Your task to perform on an android device: open app "Life360: Find Family & Friends" Image 0: 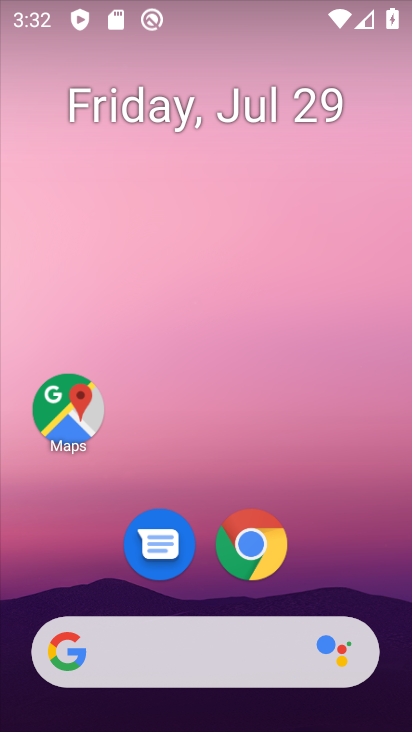
Step 0: drag from (222, 716) to (206, 148)
Your task to perform on an android device: open app "Life360: Find Family & Friends" Image 1: 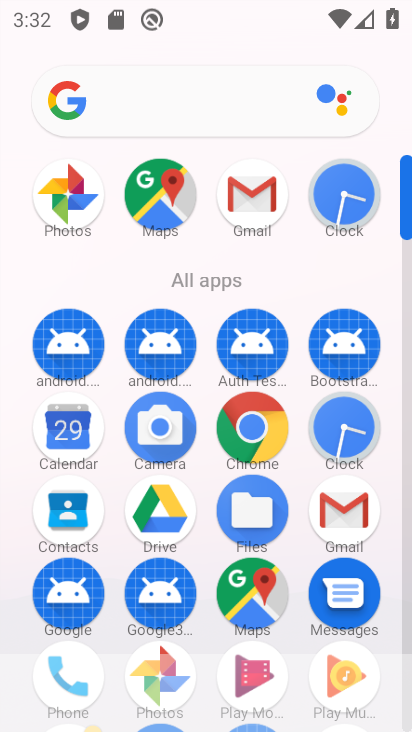
Step 1: drag from (200, 563) to (200, 258)
Your task to perform on an android device: open app "Life360: Find Family & Friends" Image 2: 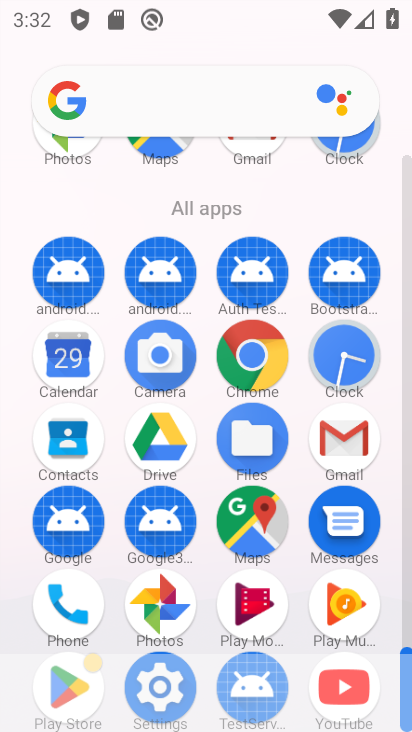
Step 2: drag from (118, 608) to (126, 242)
Your task to perform on an android device: open app "Life360: Find Family & Friends" Image 3: 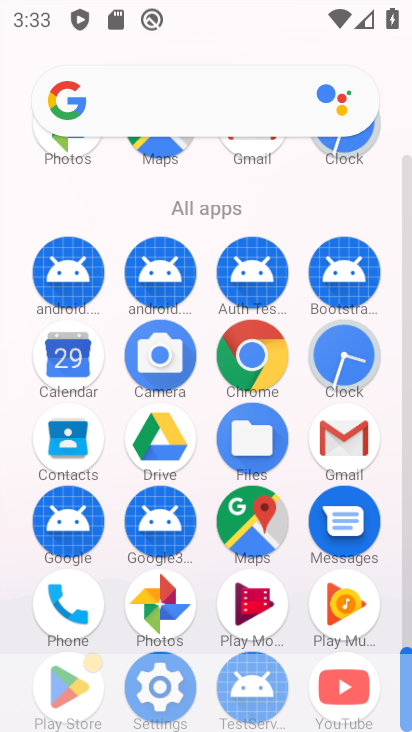
Step 3: click (74, 668)
Your task to perform on an android device: open app "Life360: Find Family & Friends" Image 4: 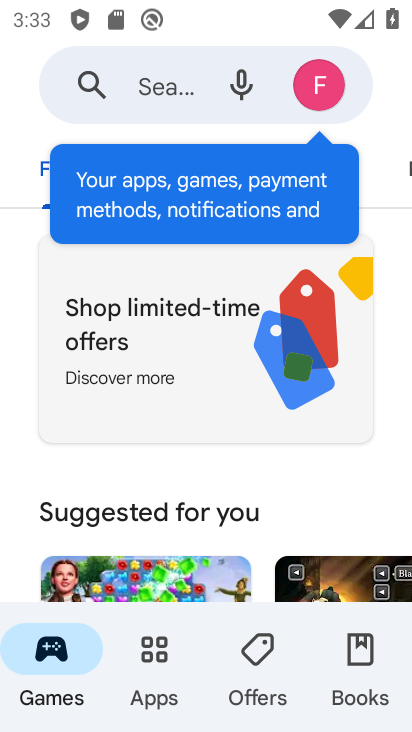
Step 4: click (155, 80)
Your task to perform on an android device: open app "Life360: Find Family & Friends" Image 5: 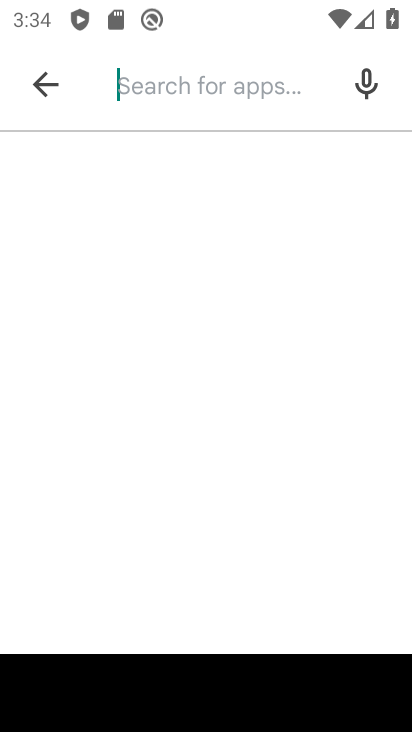
Step 5: type "Life360: Find Family & Friends"
Your task to perform on an android device: open app "Life360: Find Family & Friends" Image 6: 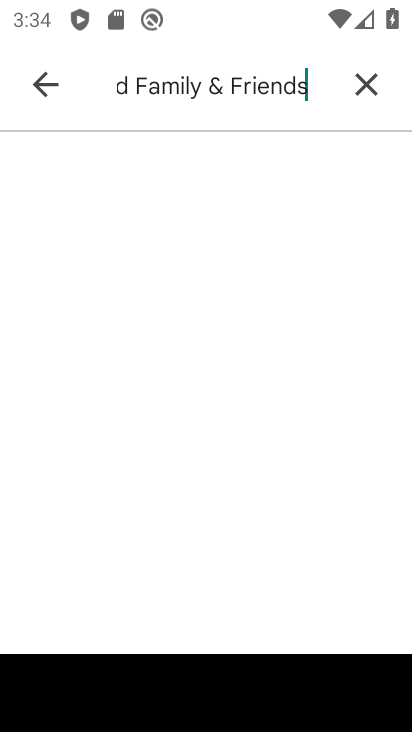
Step 6: type ""
Your task to perform on an android device: open app "Life360: Find Family & Friends" Image 7: 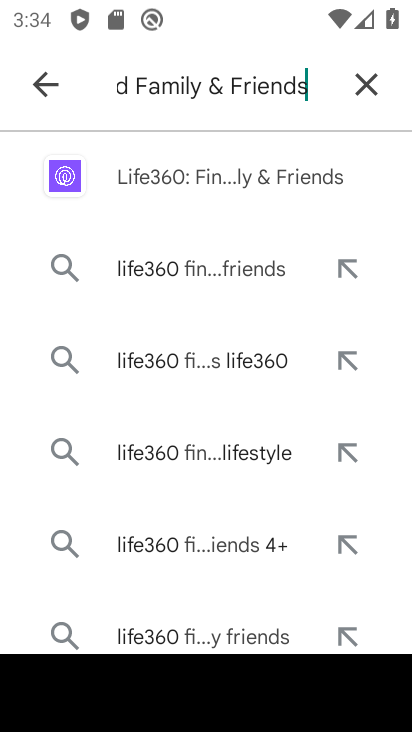
Step 7: click (275, 192)
Your task to perform on an android device: open app "Life360: Find Family & Friends" Image 8: 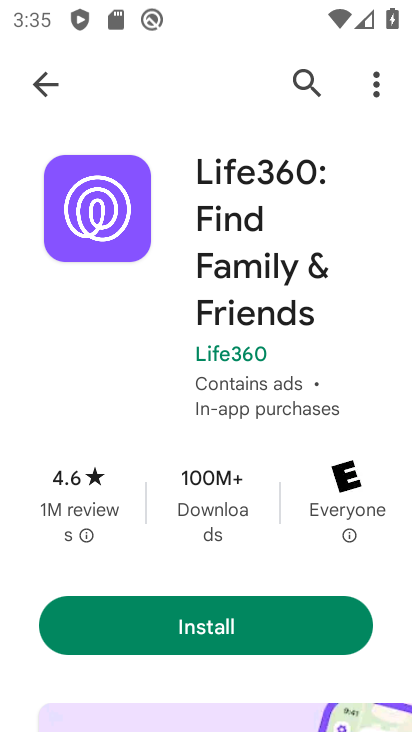
Step 8: task complete